Your task to perform on an android device: Set the phone to "Do not disturb". Image 0: 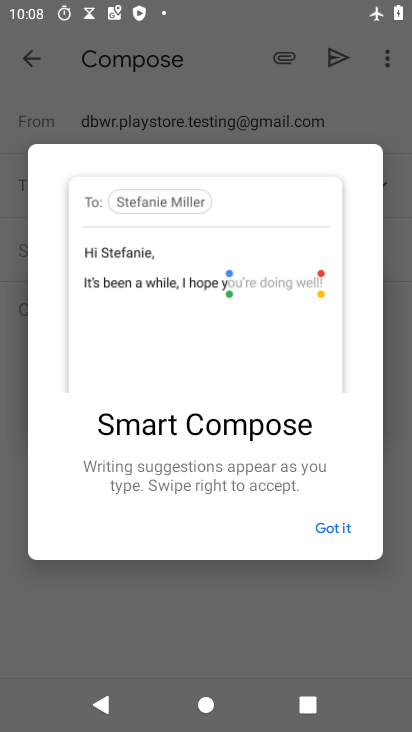
Step 0: press home button
Your task to perform on an android device: Set the phone to "Do not disturb". Image 1: 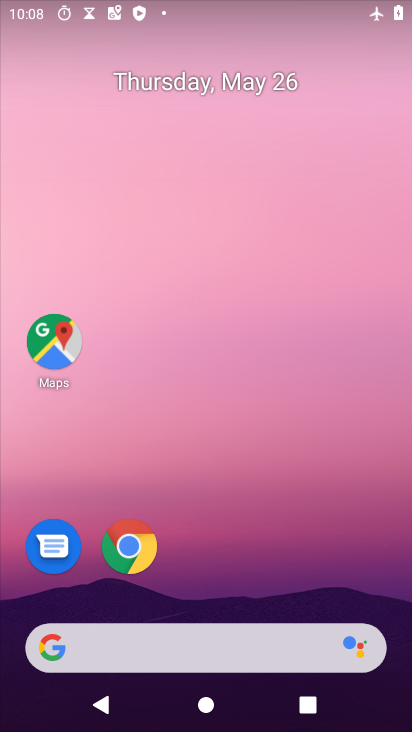
Step 1: drag from (351, 579) to (315, 124)
Your task to perform on an android device: Set the phone to "Do not disturb". Image 2: 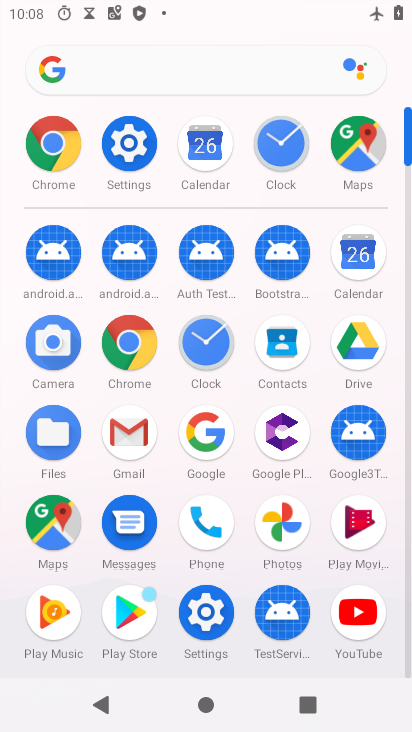
Step 2: click (214, 648)
Your task to perform on an android device: Set the phone to "Do not disturb". Image 3: 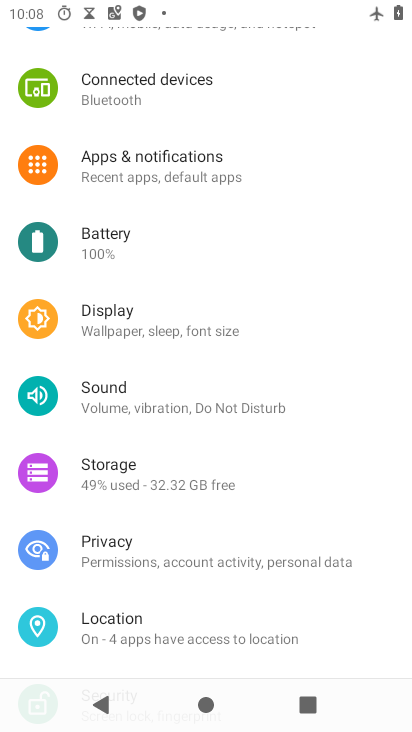
Step 3: click (242, 412)
Your task to perform on an android device: Set the phone to "Do not disturb". Image 4: 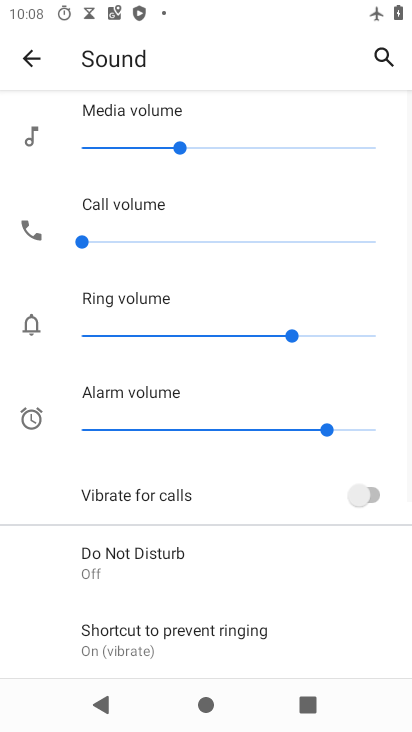
Step 4: drag from (264, 608) to (270, 355)
Your task to perform on an android device: Set the phone to "Do not disturb". Image 5: 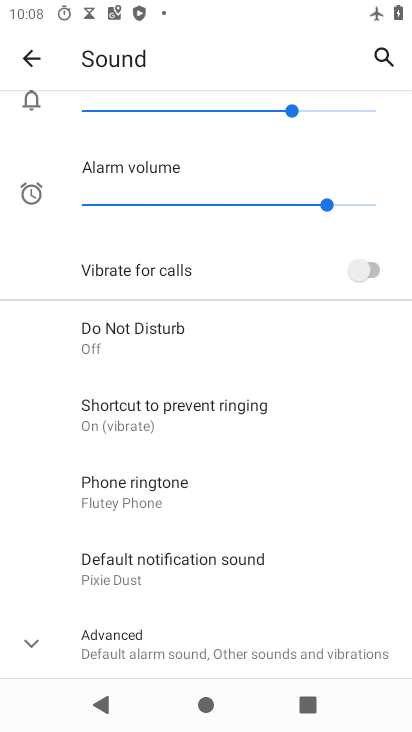
Step 5: click (192, 332)
Your task to perform on an android device: Set the phone to "Do not disturb". Image 6: 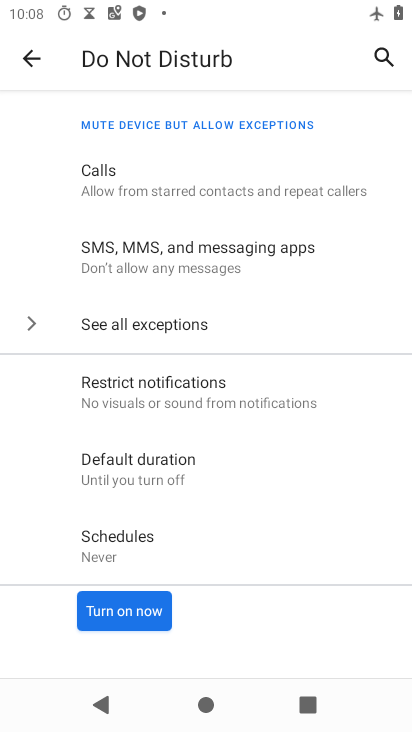
Step 6: drag from (274, 559) to (265, 383)
Your task to perform on an android device: Set the phone to "Do not disturb". Image 7: 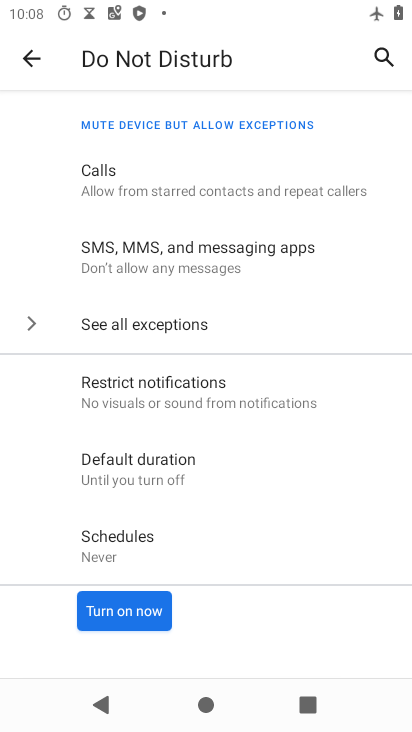
Step 7: click (160, 608)
Your task to perform on an android device: Set the phone to "Do not disturb". Image 8: 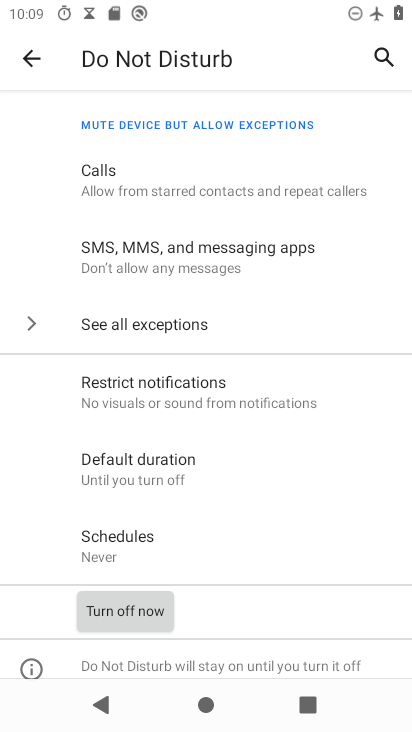
Step 8: task complete